Your task to perform on an android device: Show the shopping cart on bestbuy.com. Search for jbl charge 4 on bestbuy.com, select the first entry, add it to the cart, then select checkout. Image 0: 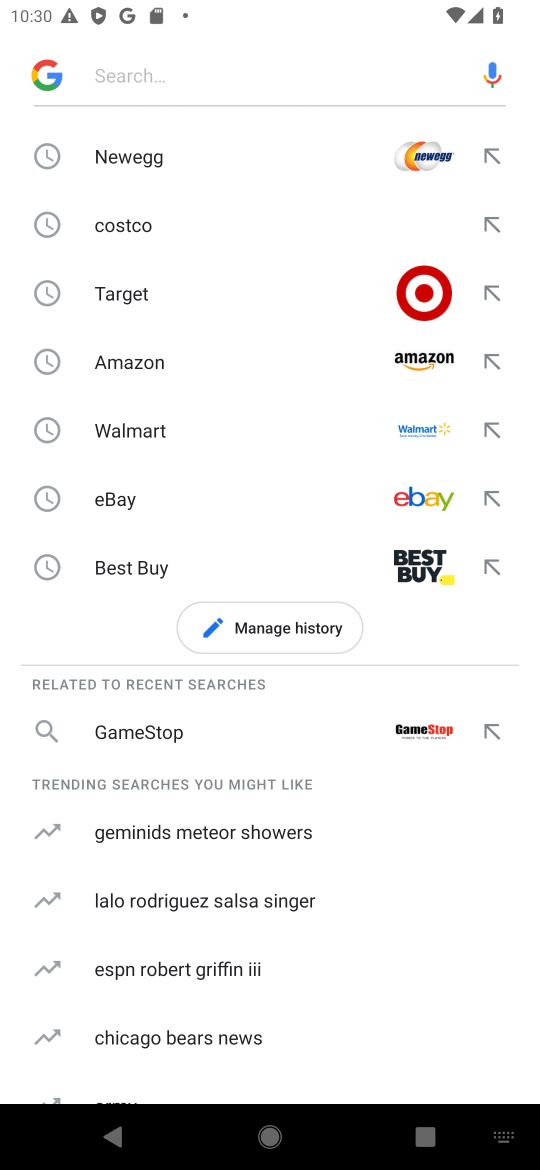
Step 0: type "bestbuy"
Your task to perform on an android device: Show the shopping cart on bestbuy.com. Search for jbl charge 4 on bestbuy.com, select the first entry, add it to the cart, then select checkout. Image 1: 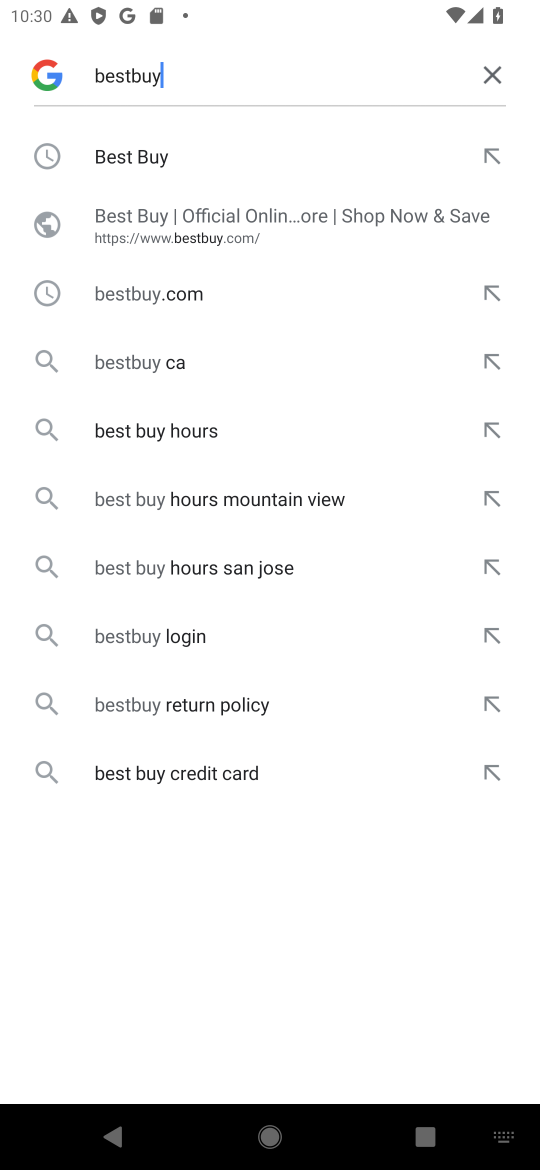
Step 1: click (160, 167)
Your task to perform on an android device: Show the shopping cart on bestbuy.com. Search for jbl charge 4 on bestbuy.com, select the first entry, add it to the cart, then select checkout. Image 2: 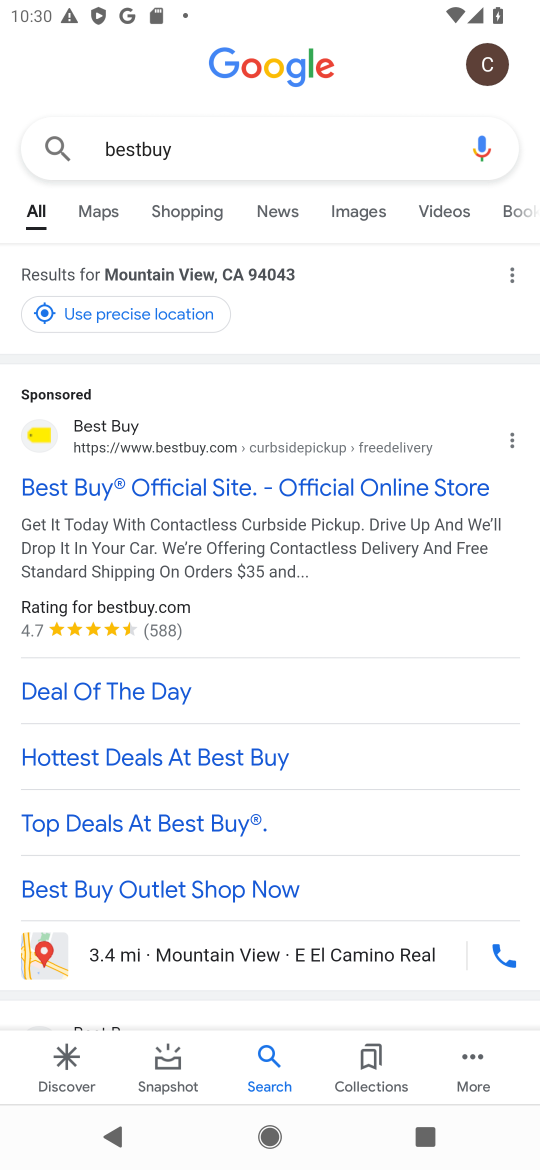
Step 2: click (87, 487)
Your task to perform on an android device: Show the shopping cart on bestbuy.com. Search for jbl charge 4 on bestbuy.com, select the first entry, add it to the cart, then select checkout. Image 3: 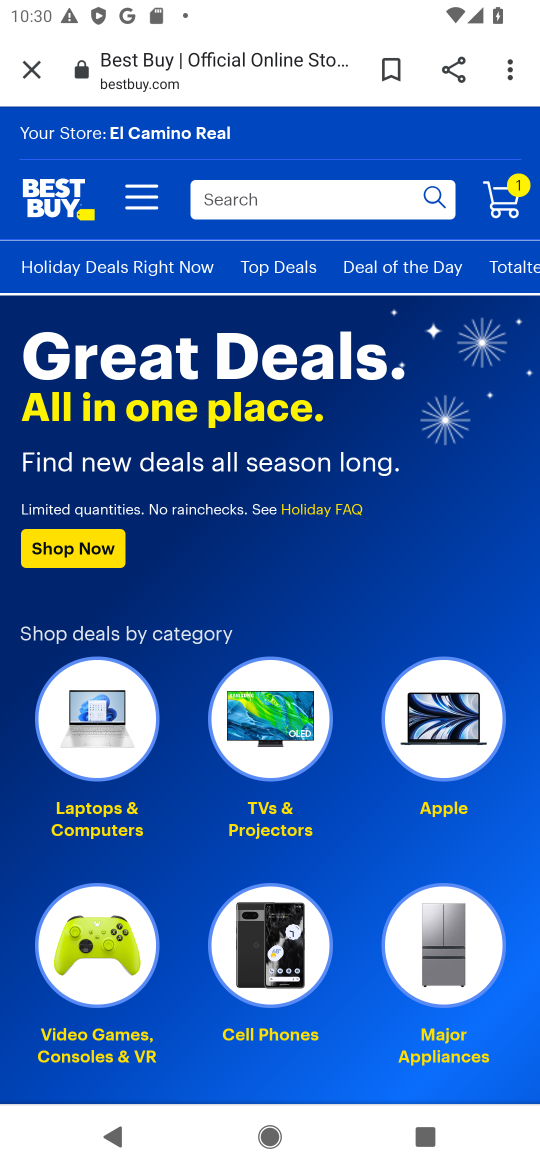
Step 3: click (275, 214)
Your task to perform on an android device: Show the shopping cart on bestbuy.com. Search for jbl charge 4 on bestbuy.com, select the first entry, add it to the cart, then select checkout. Image 4: 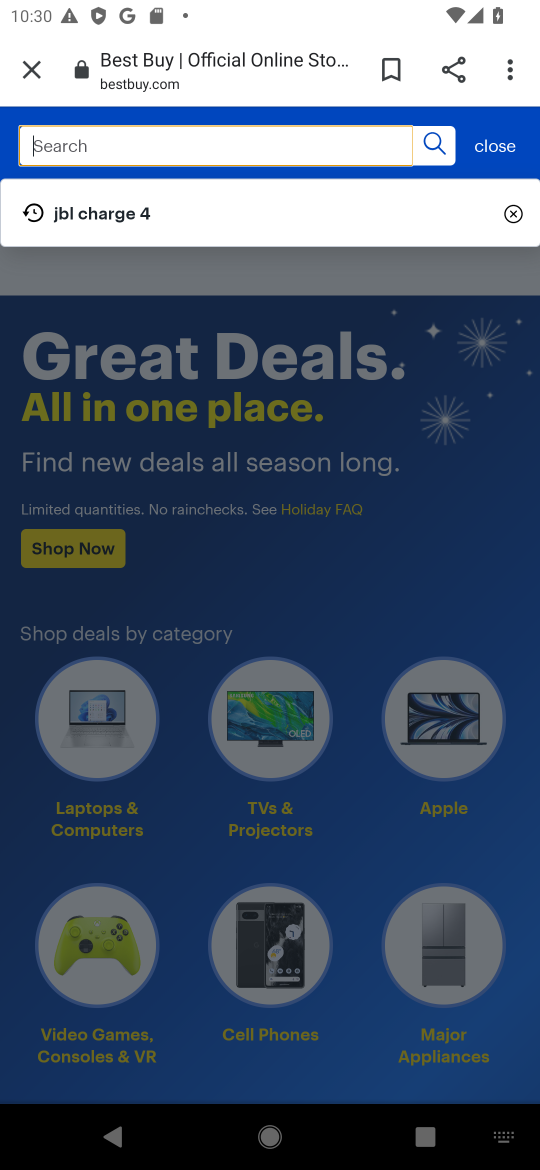
Step 4: type "jbl charge 4"
Your task to perform on an android device: Show the shopping cart on bestbuy.com. Search for jbl charge 4 on bestbuy.com, select the first entry, add it to the cart, then select checkout. Image 5: 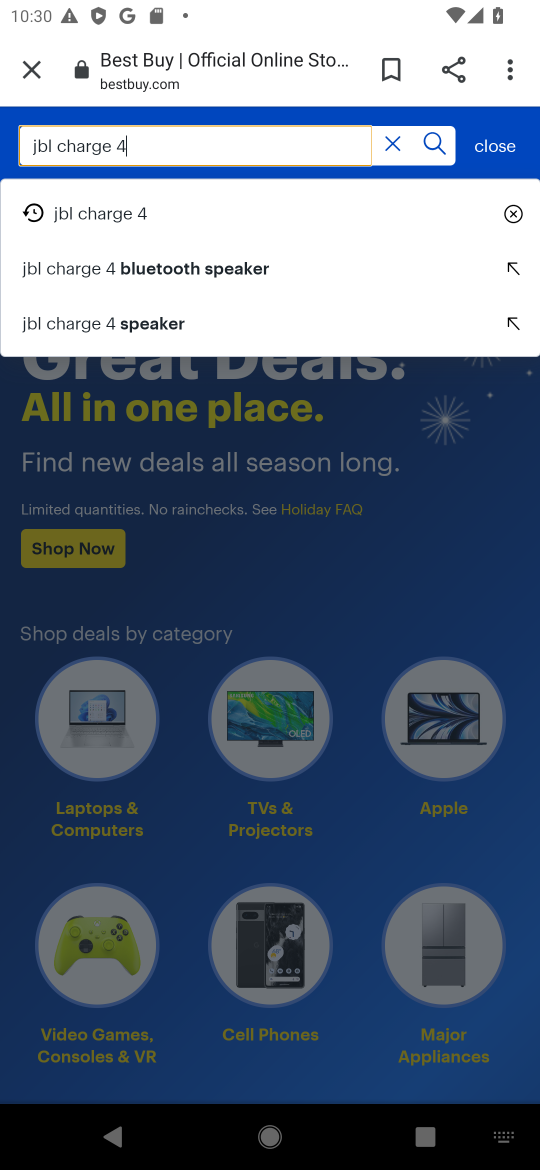
Step 5: click (195, 222)
Your task to perform on an android device: Show the shopping cart on bestbuy.com. Search for jbl charge 4 on bestbuy.com, select the first entry, add it to the cart, then select checkout. Image 6: 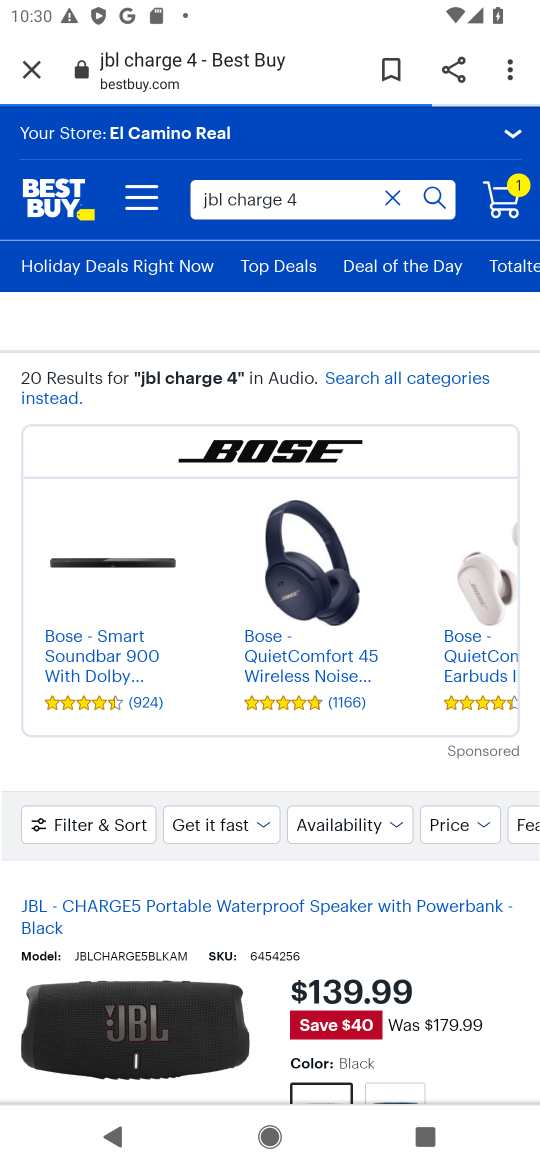
Step 6: drag from (221, 1080) to (238, 462)
Your task to perform on an android device: Show the shopping cart on bestbuy.com. Search for jbl charge 4 on bestbuy.com, select the first entry, add it to the cart, then select checkout. Image 7: 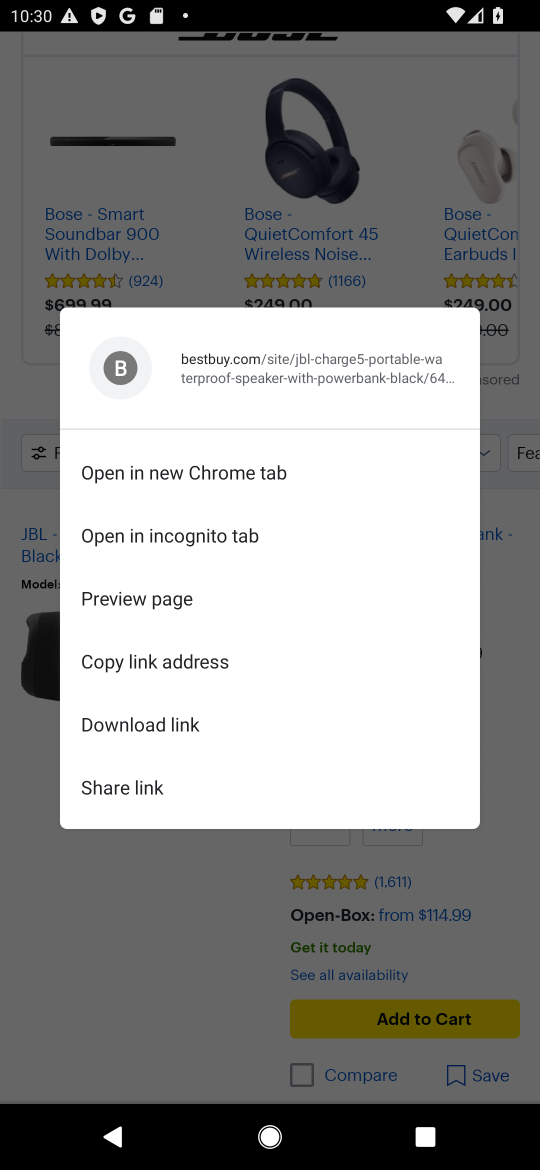
Step 7: click (191, 896)
Your task to perform on an android device: Show the shopping cart on bestbuy.com. Search for jbl charge 4 on bestbuy.com, select the first entry, add it to the cart, then select checkout. Image 8: 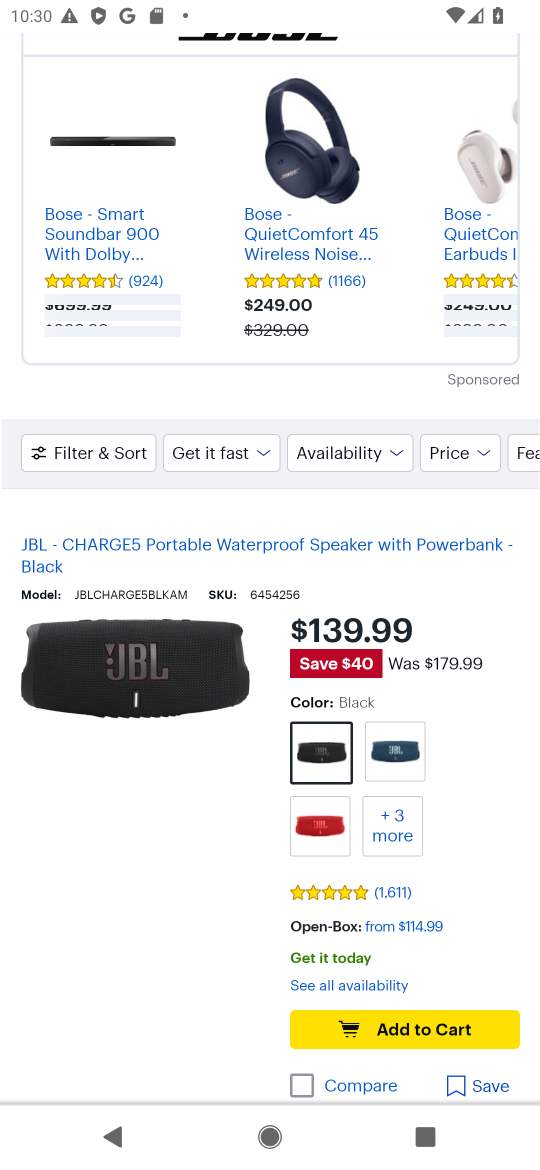
Step 8: click (461, 1046)
Your task to perform on an android device: Show the shopping cart on bestbuy.com. Search for jbl charge 4 on bestbuy.com, select the first entry, add it to the cart, then select checkout. Image 9: 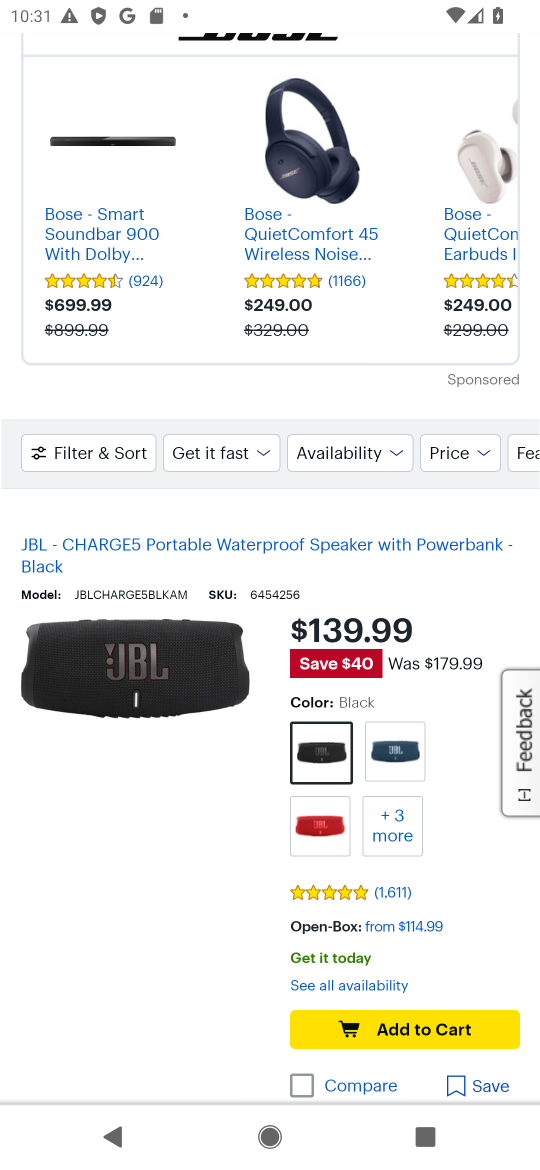
Step 9: click (386, 1036)
Your task to perform on an android device: Show the shopping cart on bestbuy.com. Search for jbl charge 4 on bestbuy.com, select the first entry, add it to the cart, then select checkout. Image 10: 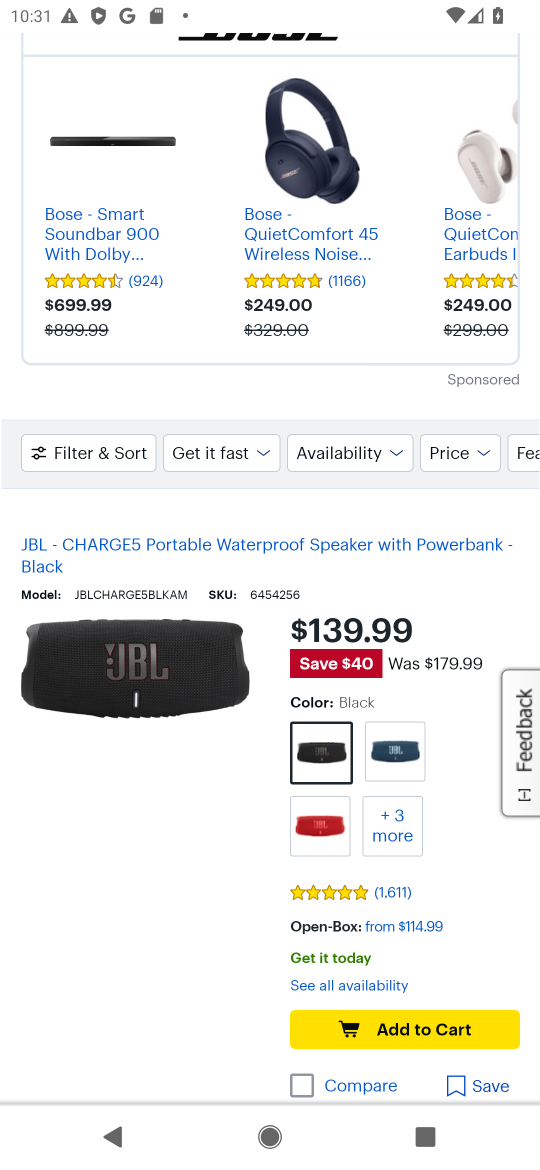
Step 10: click (397, 1021)
Your task to perform on an android device: Show the shopping cart on bestbuy.com. Search for jbl charge 4 on bestbuy.com, select the first entry, add it to the cart, then select checkout. Image 11: 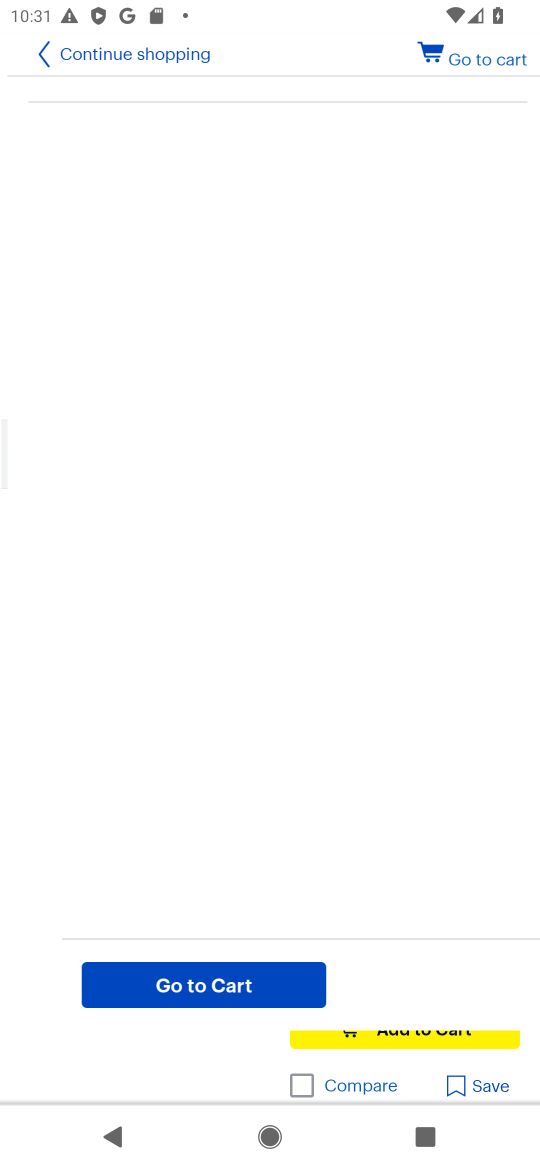
Step 11: task complete